Your task to perform on an android device: Open Google Chrome Image 0: 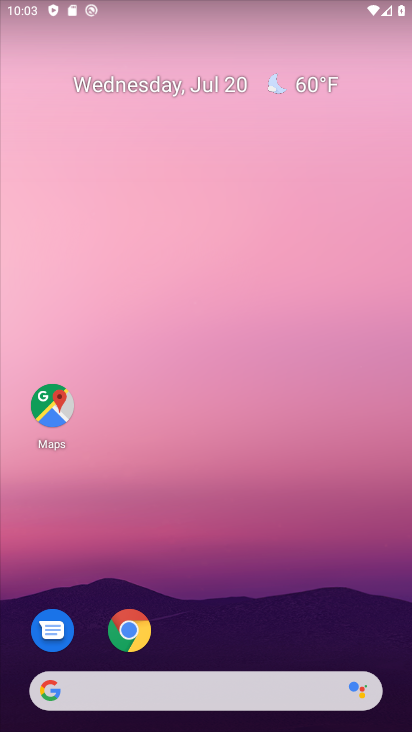
Step 0: drag from (268, 531) to (15, 176)
Your task to perform on an android device: Open Google Chrome Image 1: 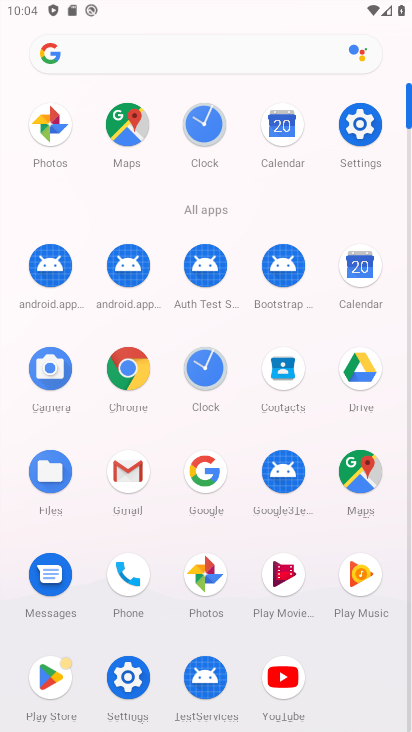
Step 1: click (136, 382)
Your task to perform on an android device: Open Google Chrome Image 2: 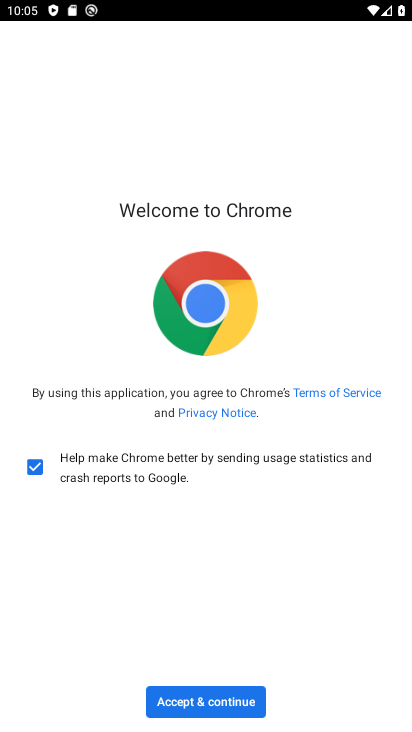
Step 2: click (243, 698)
Your task to perform on an android device: Open Google Chrome Image 3: 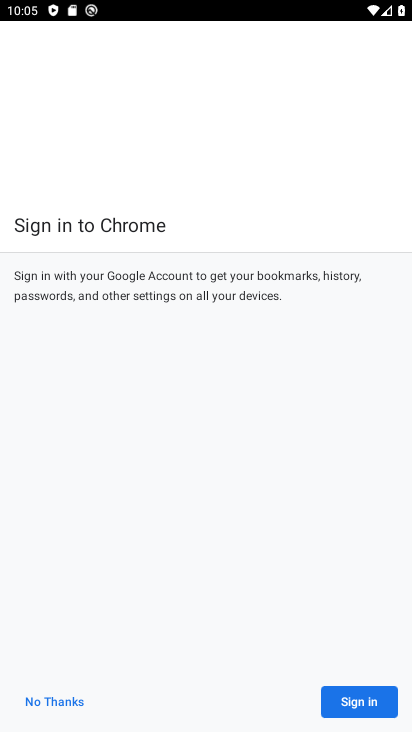
Step 3: click (28, 702)
Your task to perform on an android device: Open Google Chrome Image 4: 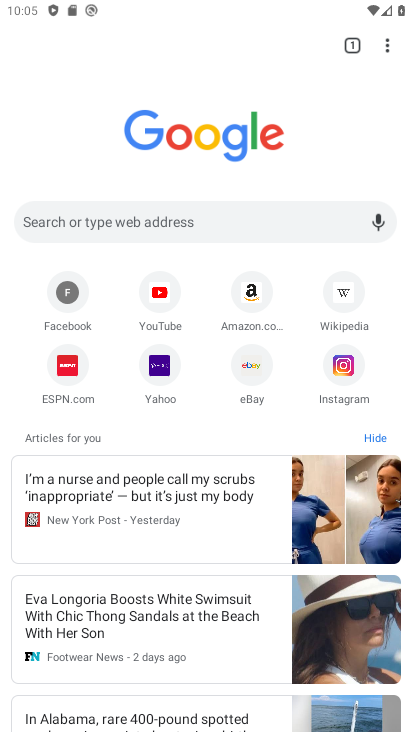
Step 4: task complete